Your task to perform on an android device: Open accessibility settings Image 0: 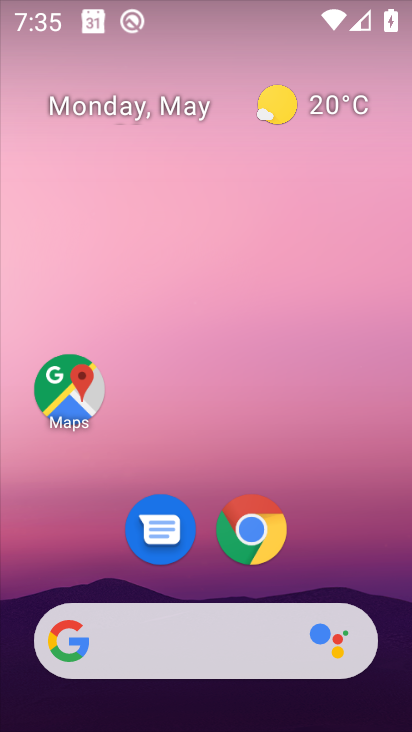
Step 0: press home button
Your task to perform on an android device: Open accessibility settings Image 1: 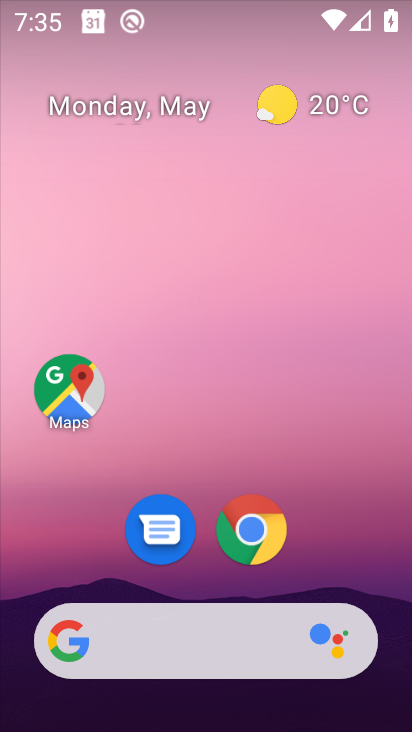
Step 1: drag from (36, 598) to (227, 160)
Your task to perform on an android device: Open accessibility settings Image 2: 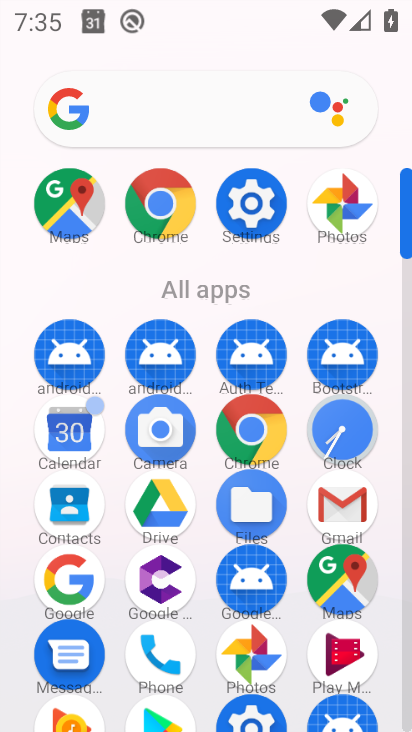
Step 2: click (245, 210)
Your task to perform on an android device: Open accessibility settings Image 3: 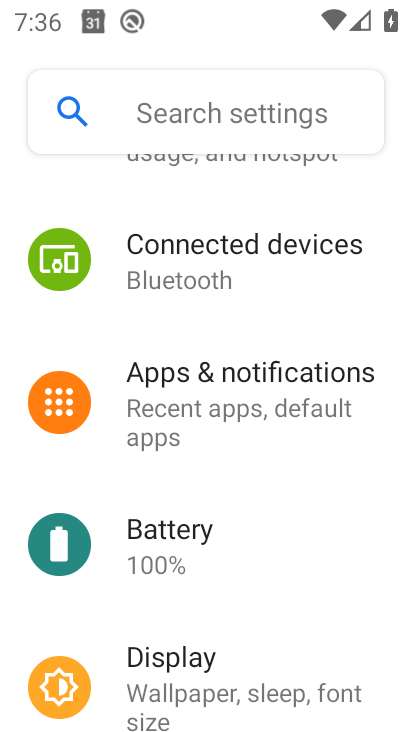
Step 3: drag from (23, 602) to (246, 281)
Your task to perform on an android device: Open accessibility settings Image 4: 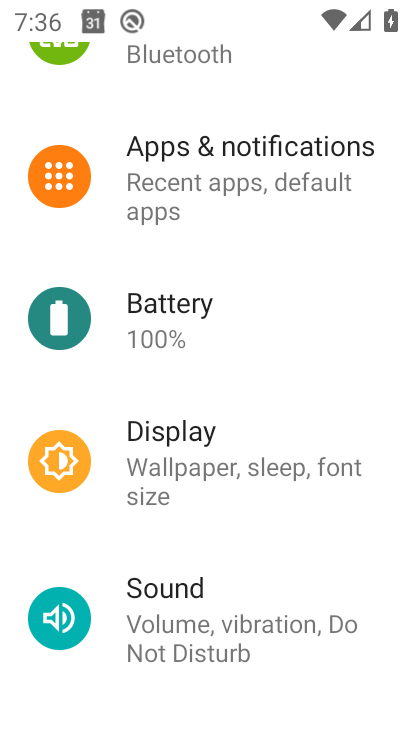
Step 4: drag from (25, 593) to (212, 218)
Your task to perform on an android device: Open accessibility settings Image 5: 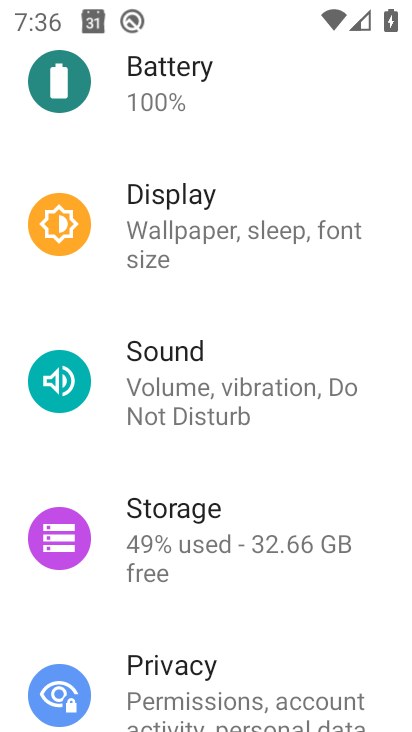
Step 5: drag from (22, 519) to (234, 144)
Your task to perform on an android device: Open accessibility settings Image 6: 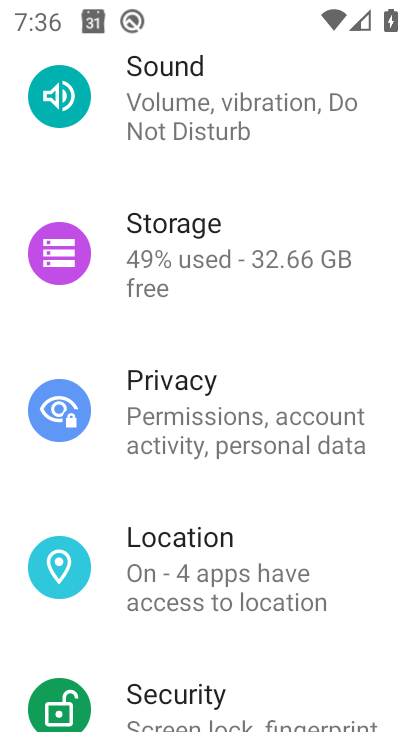
Step 6: drag from (12, 632) to (220, 202)
Your task to perform on an android device: Open accessibility settings Image 7: 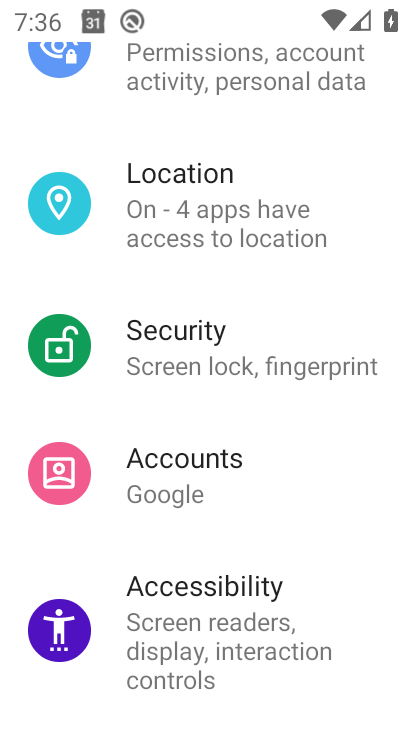
Step 7: drag from (18, 562) to (247, 170)
Your task to perform on an android device: Open accessibility settings Image 8: 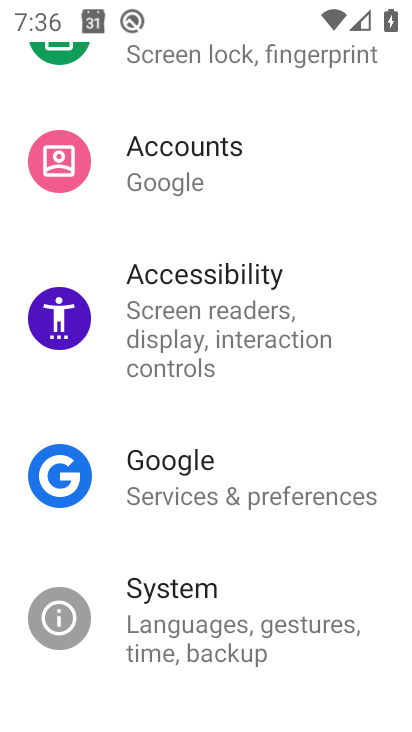
Step 8: click (72, 315)
Your task to perform on an android device: Open accessibility settings Image 9: 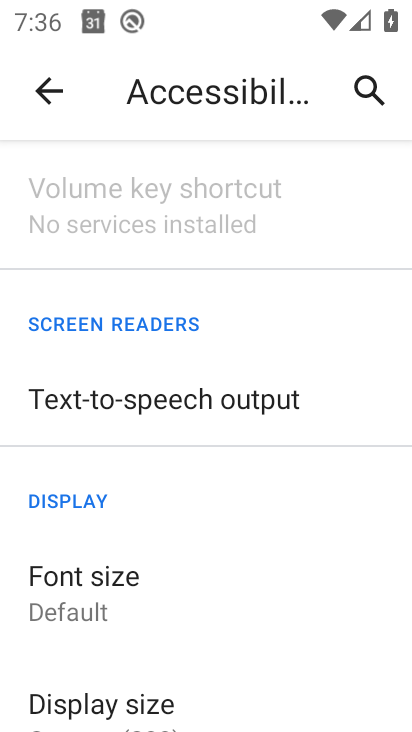
Step 9: task complete